Your task to perform on an android device: set the stopwatch Image 0: 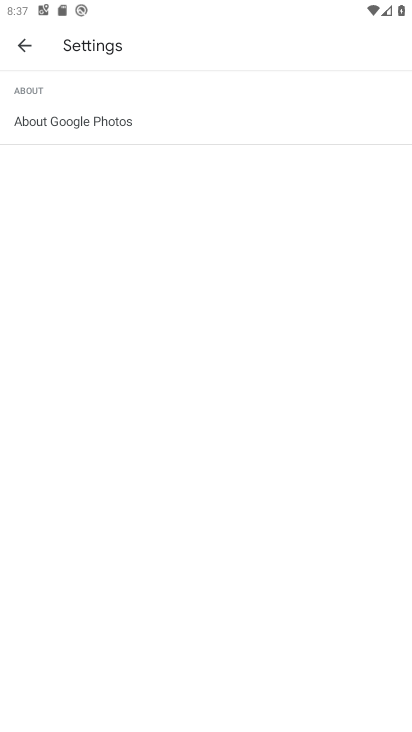
Step 0: drag from (264, 621) to (360, 237)
Your task to perform on an android device: set the stopwatch Image 1: 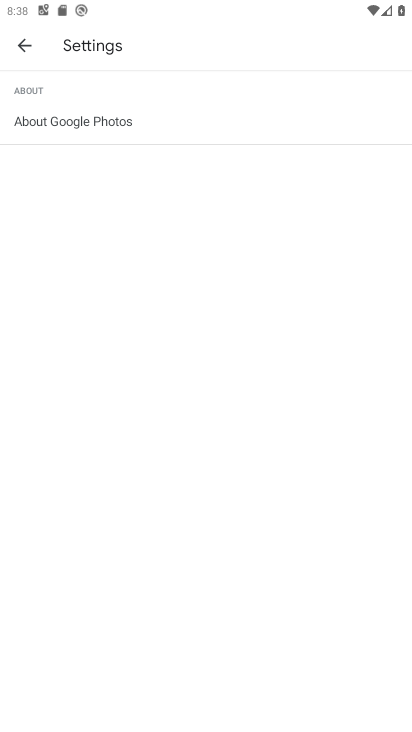
Step 1: press back button
Your task to perform on an android device: set the stopwatch Image 2: 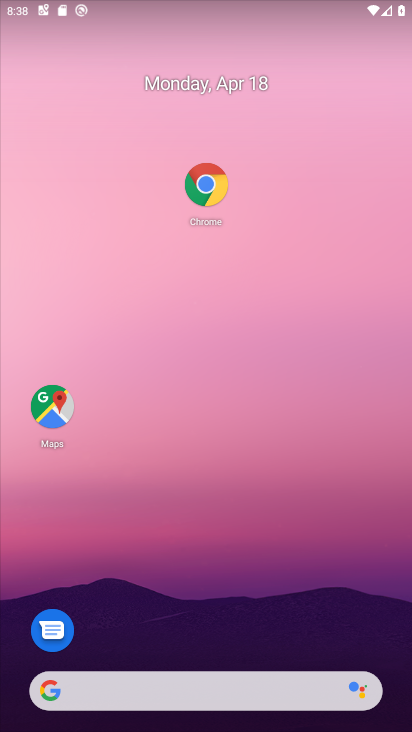
Step 2: drag from (236, 636) to (363, 115)
Your task to perform on an android device: set the stopwatch Image 3: 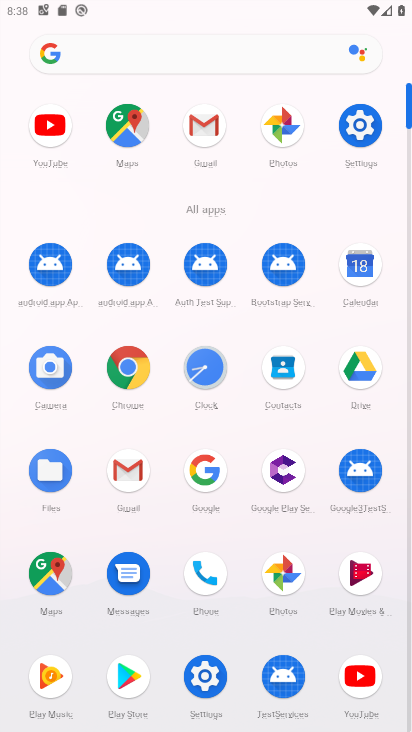
Step 3: click (205, 375)
Your task to perform on an android device: set the stopwatch Image 4: 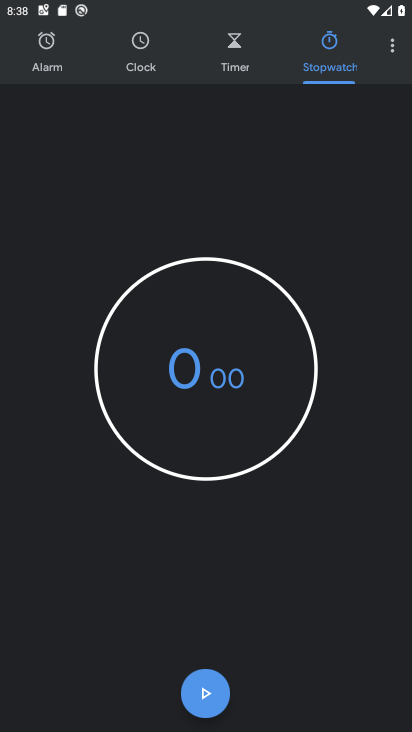
Step 4: click (205, 694)
Your task to perform on an android device: set the stopwatch Image 5: 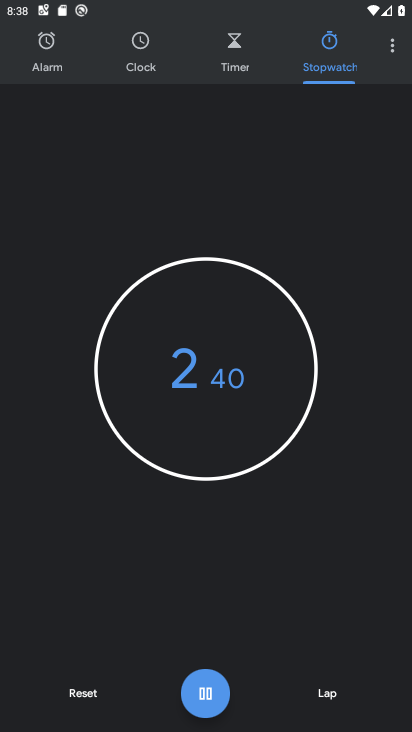
Step 5: task complete